Your task to perform on an android device: snooze an email in the gmail app Image 0: 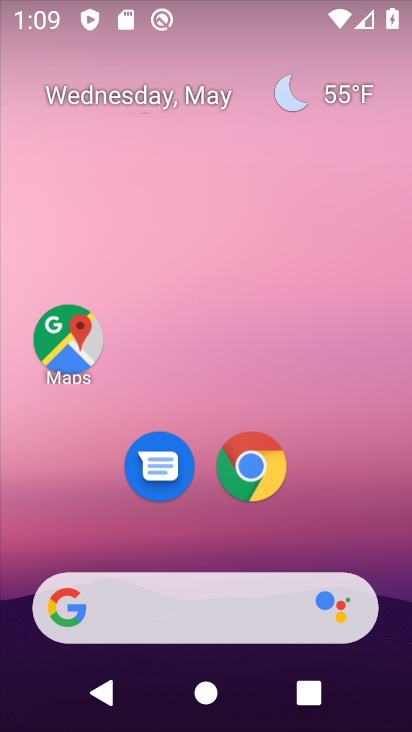
Step 0: drag from (341, 533) to (394, 49)
Your task to perform on an android device: snooze an email in the gmail app Image 1: 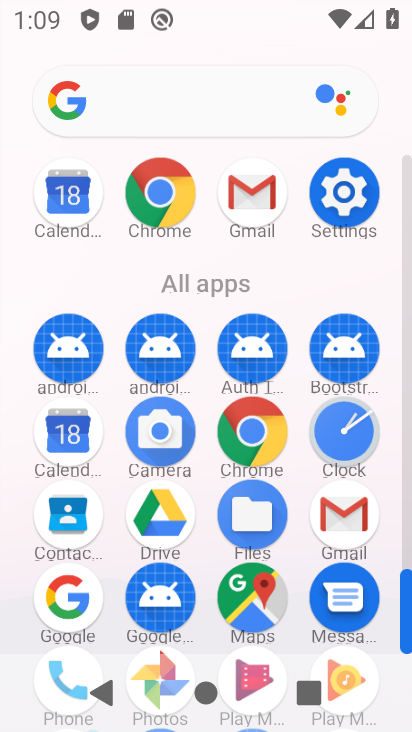
Step 1: click (357, 517)
Your task to perform on an android device: snooze an email in the gmail app Image 2: 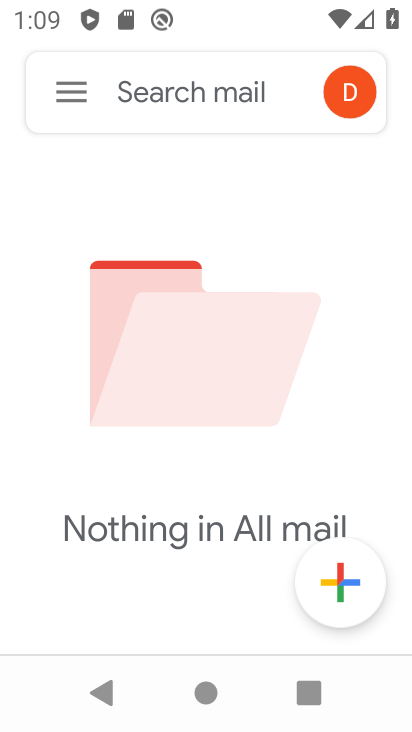
Step 2: task complete